Your task to perform on an android device: check data usage Image 0: 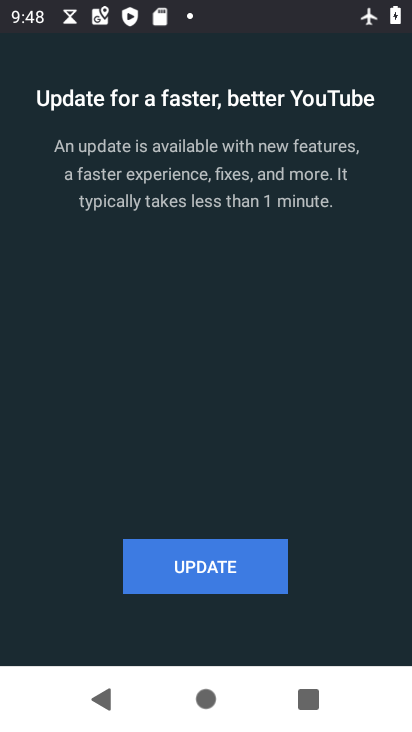
Step 0: press back button
Your task to perform on an android device: check data usage Image 1: 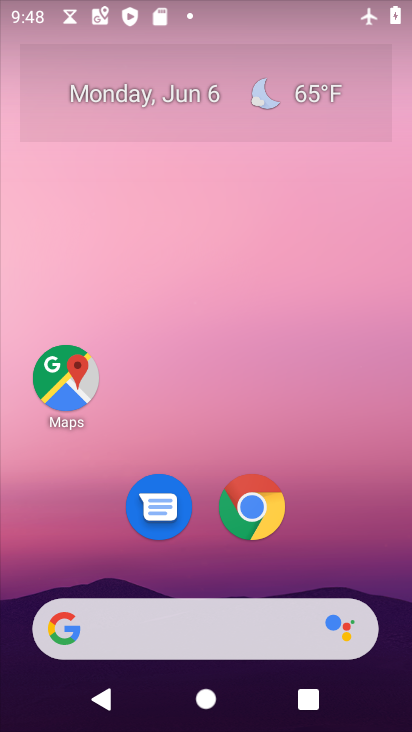
Step 1: drag from (221, 566) to (261, 180)
Your task to perform on an android device: check data usage Image 2: 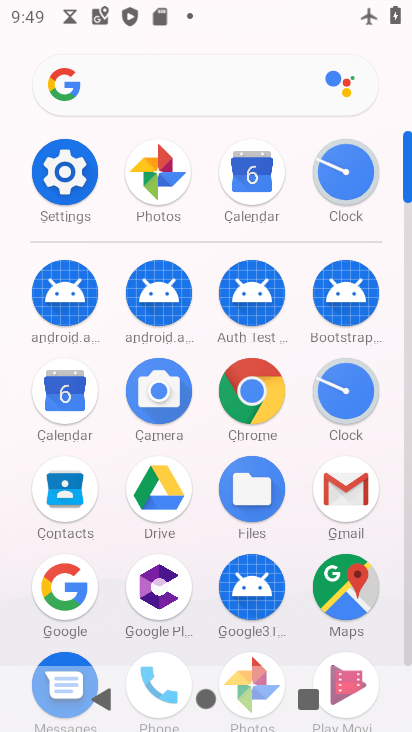
Step 2: click (62, 151)
Your task to perform on an android device: check data usage Image 3: 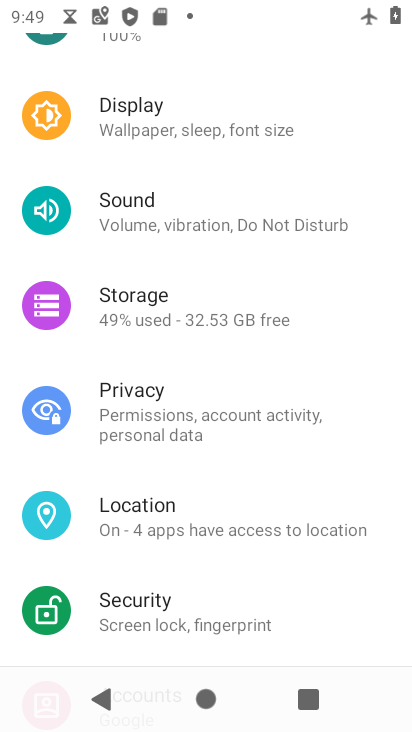
Step 3: drag from (157, 138) to (160, 502)
Your task to perform on an android device: check data usage Image 4: 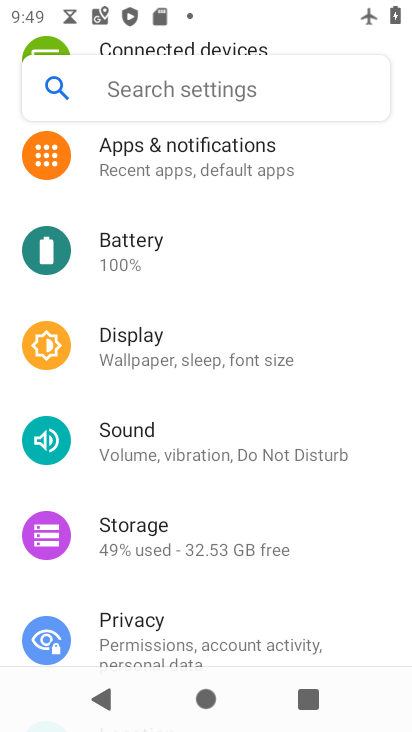
Step 4: drag from (156, 189) to (160, 590)
Your task to perform on an android device: check data usage Image 5: 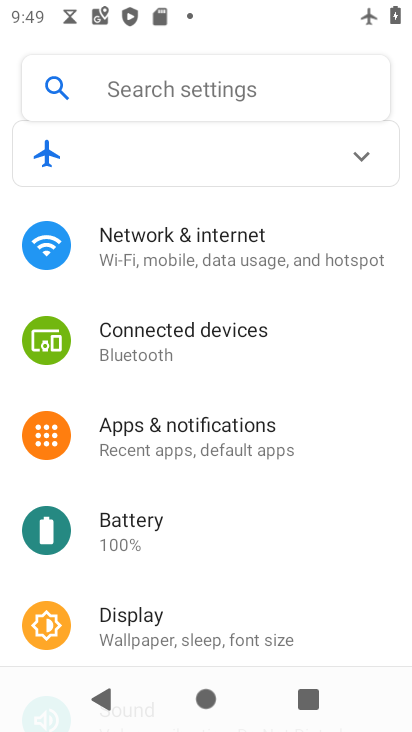
Step 5: click (162, 234)
Your task to perform on an android device: check data usage Image 6: 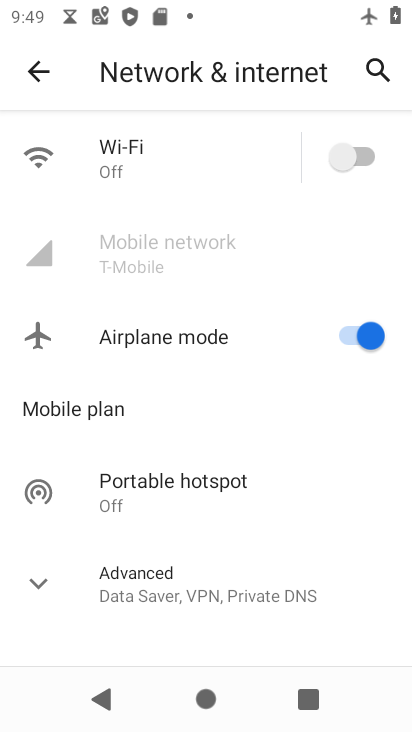
Step 6: click (147, 249)
Your task to perform on an android device: check data usage Image 7: 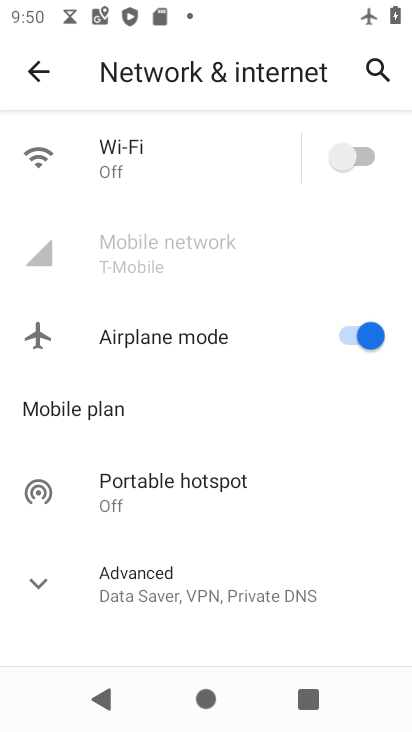
Step 7: task complete